Your task to perform on an android device: toggle pop-ups in chrome Image 0: 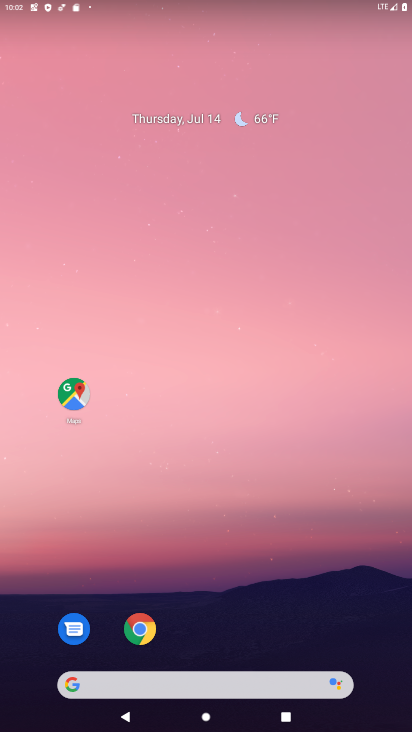
Step 0: press home button
Your task to perform on an android device: toggle pop-ups in chrome Image 1: 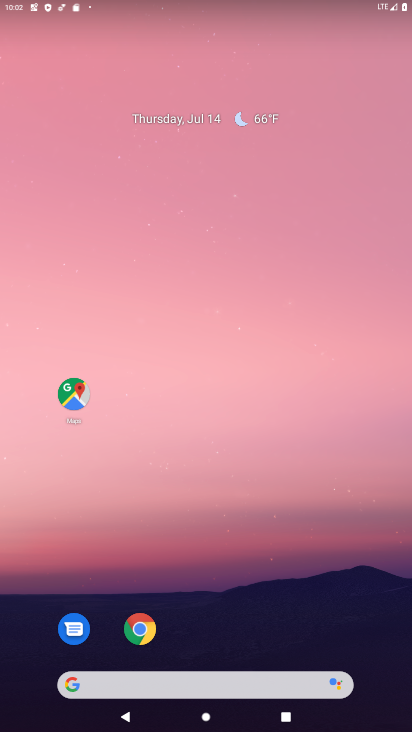
Step 1: click (136, 633)
Your task to perform on an android device: toggle pop-ups in chrome Image 2: 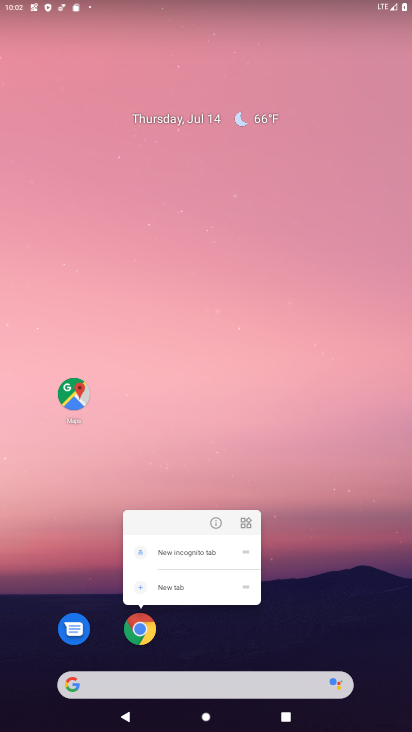
Step 2: click (136, 633)
Your task to perform on an android device: toggle pop-ups in chrome Image 3: 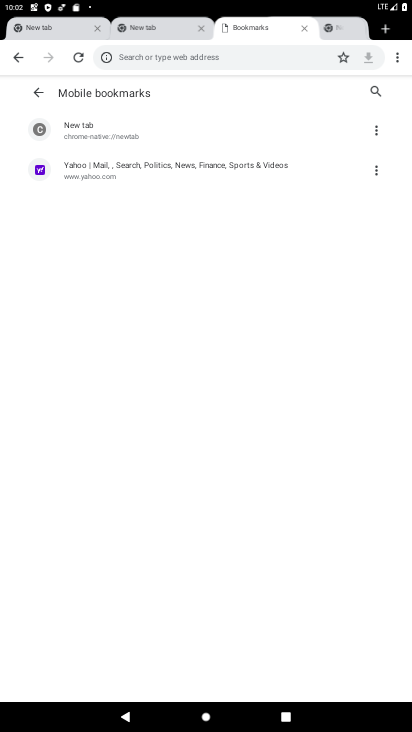
Step 3: click (396, 59)
Your task to perform on an android device: toggle pop-ups in chrome Image 4: 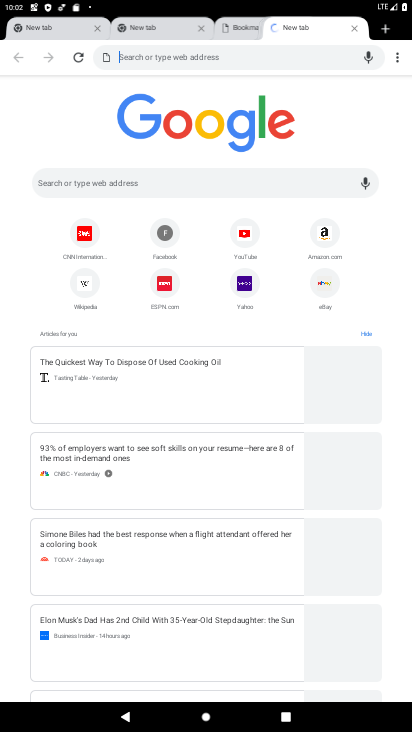
Step 4: drag from (283, 260) to (297, 131)
Your task to perform on an android device: toggle pop-ups in chrome Image 5: 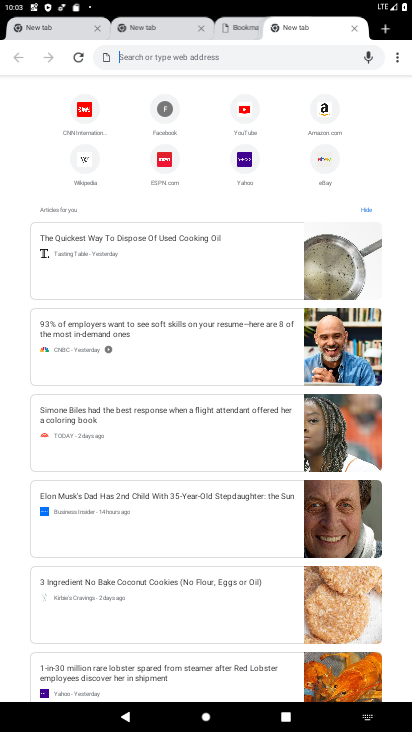
Step 5: click (395, 56)
Your task to perform on an android device: toggle pop-ups in chrome Image 6: 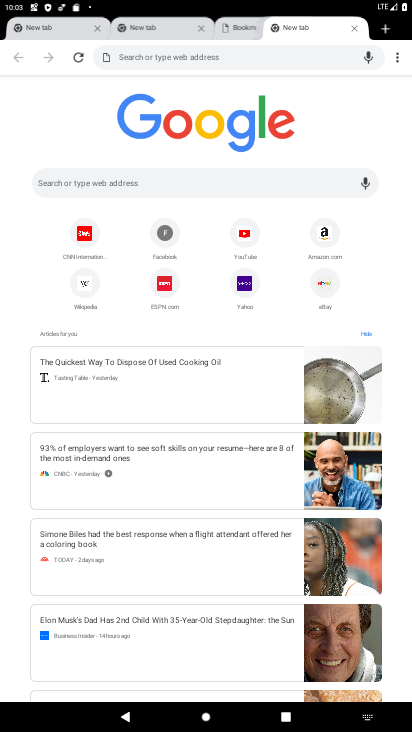
Step 6: drag from (397, 55) to (279, 257)
Your task to perform on an android device: toggle pop-ups in chrome Image 7: 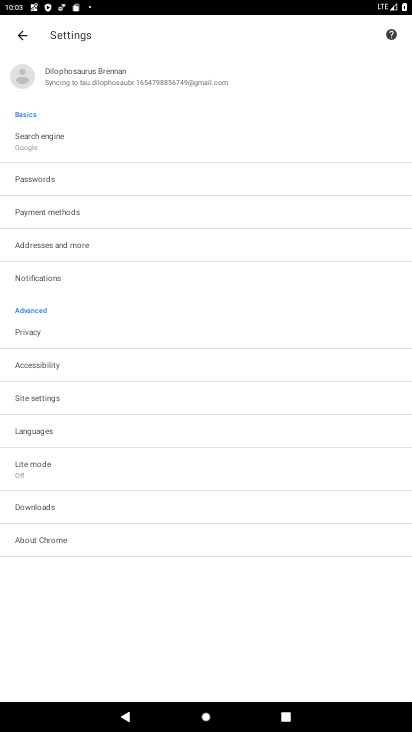
Step 7: click (46, 395)
Your task to perform on an android device: toggle pop-ups in chrome Image 8: 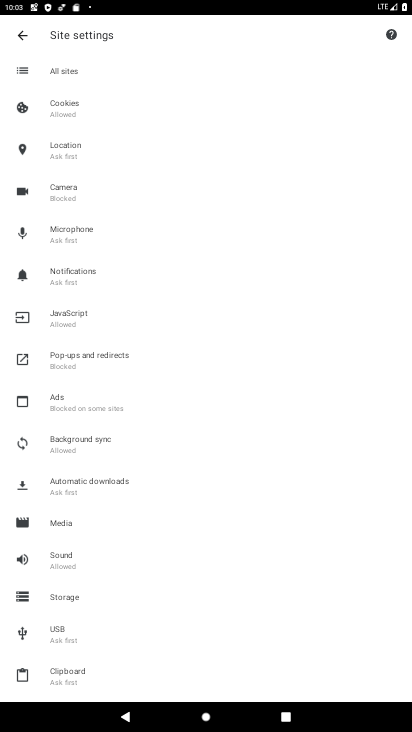
Step 8: click (52, 358)
Your task to perform on an android device: toggle pop-ups in chrome Image 9: 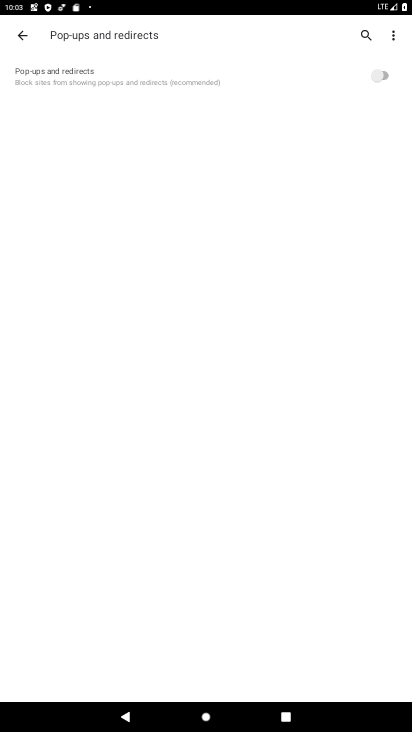
Step 9: click (387, 73)
Your task to perform on an android device: toggle pop-ups in chrome Image 10: 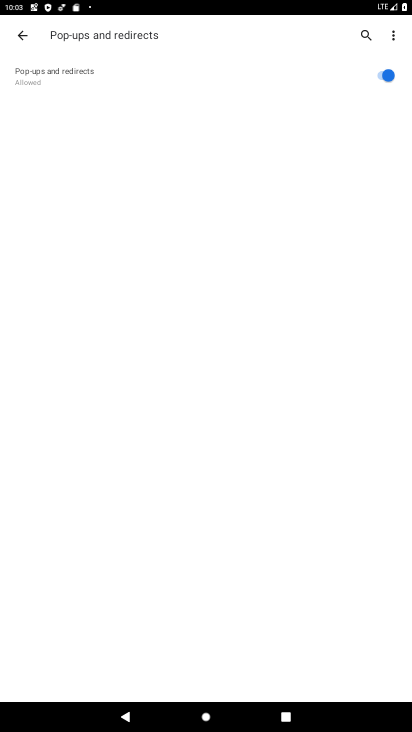
Step 10: task complete